Your task to perform on an android device: Go to calendar. Show me events next week Image 0: 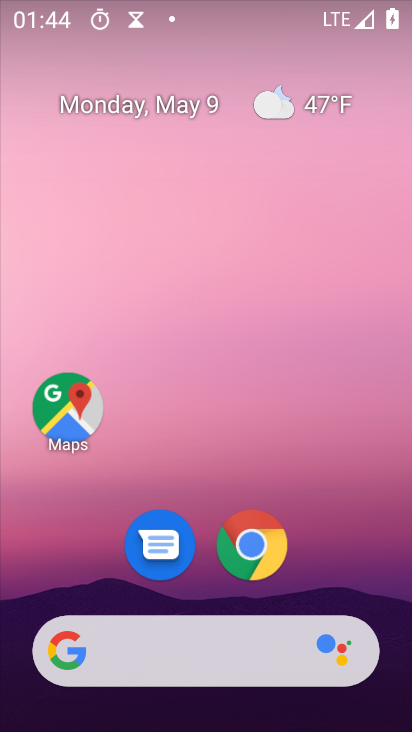
Step 0: drag from (280, 590) to (277, 5)
Your task to perform on an android device: Go to calendar. Show me events next week Image 1: 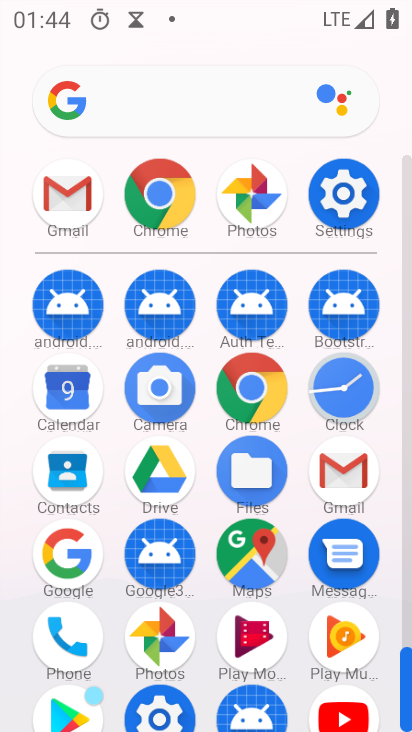
Step 1: click (80, 388)
Your task to perform on an android device: Go to calendar. Show me events next week Image 2: 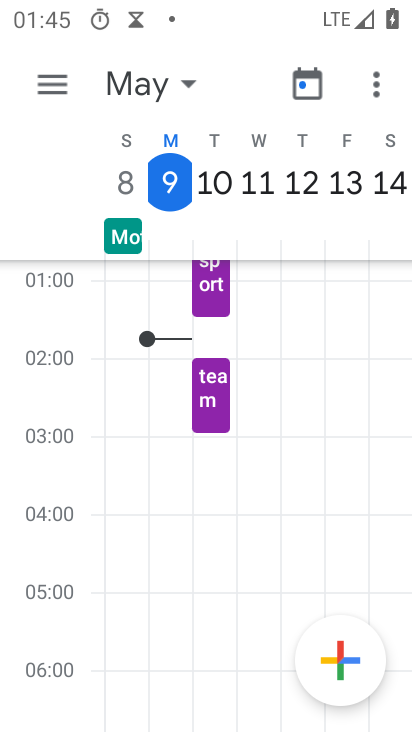
Step 2: click (174, 84)
Your task to perform on an android device: Go to calendar. Show me events next week Image 3: 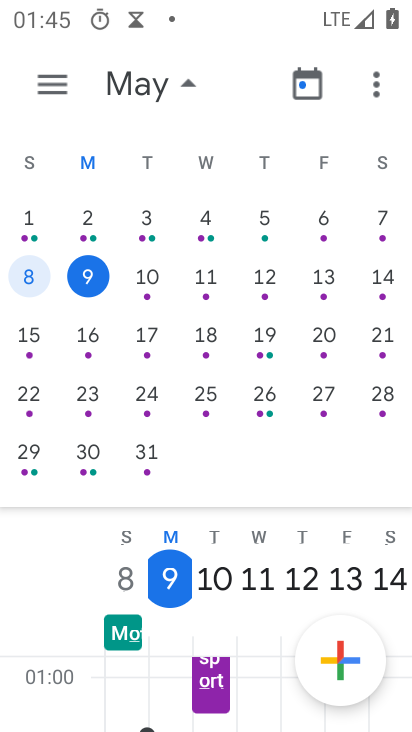
Step 3: click (157, 331)
Your task to perform on an android device: Go to calendar. Show me events next week Image 4: 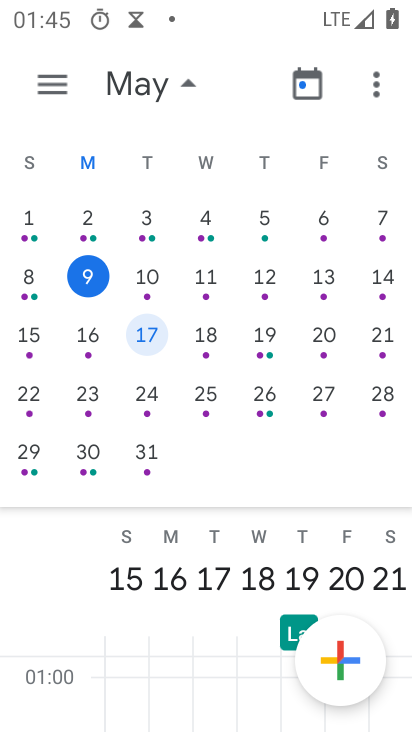
Step 4: task complete